Your task to perform on an android device: Add "dell alienware" to the cart on walmart Image 0: 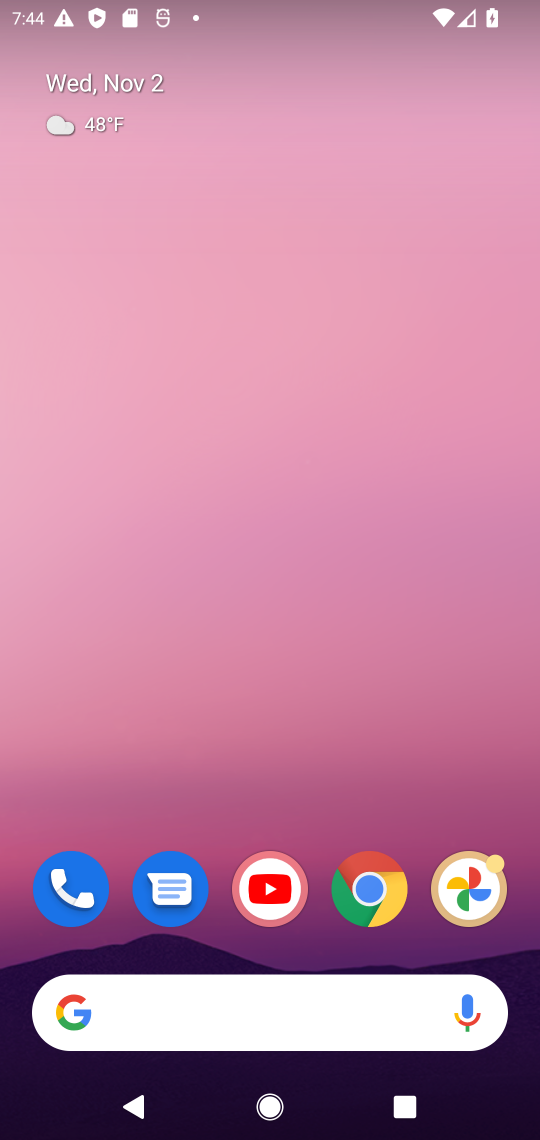
Step 0: drag from (309, 838) to (306, 72)
Your task to perform on an android device: Add "dell alienware" to the cart on walmart Image 1: 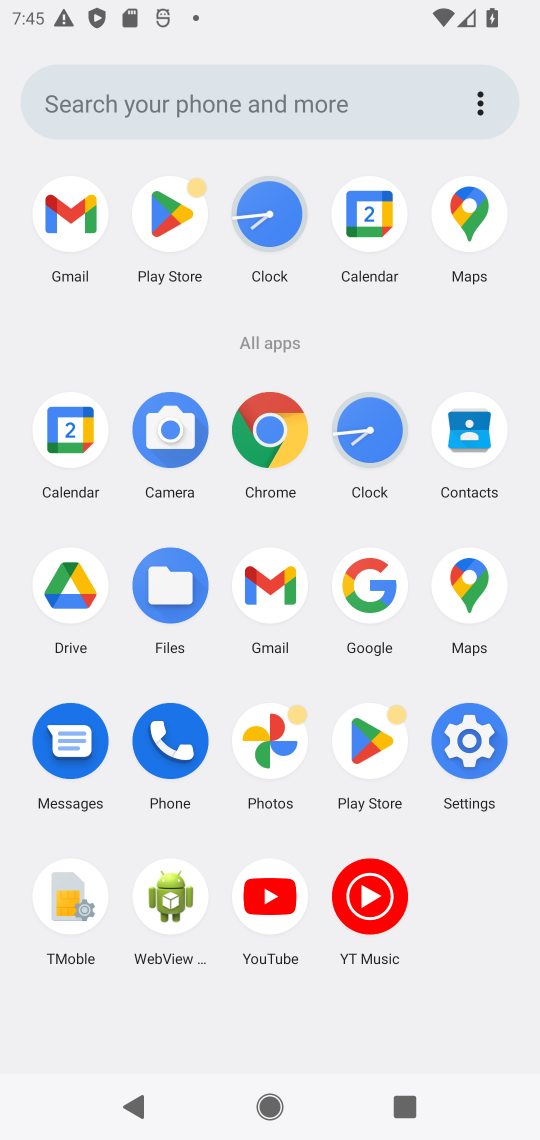
Step 1: click (273, 424)
Your task to perform on an android device: Add "dell alienware" to the cart on walmart Image 2: 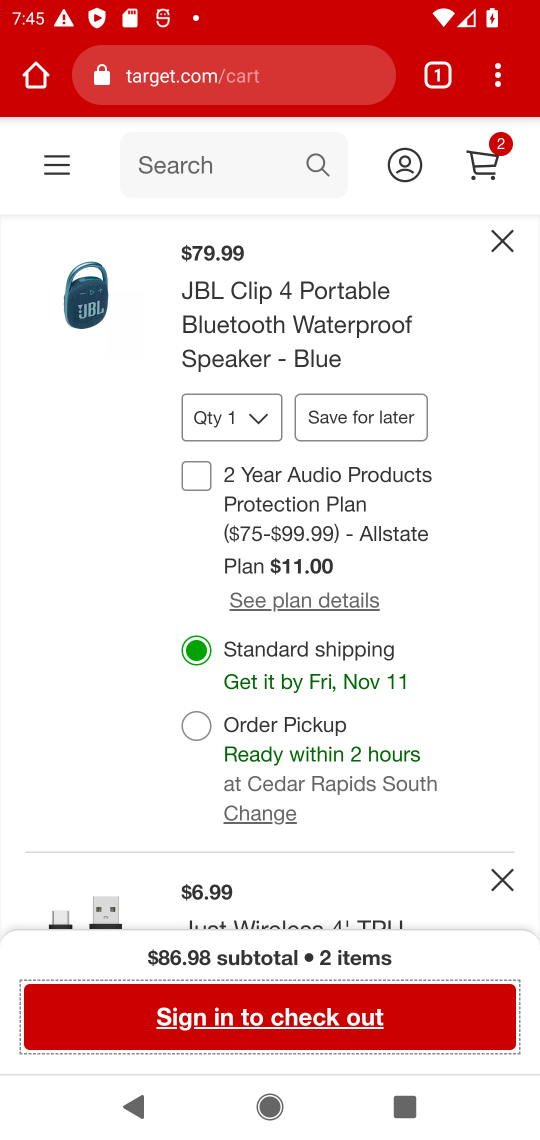
Step 2: click (305, 161)
Your task to perform on an android device: Add "dell alienware" to the cart on walmart Image 3: 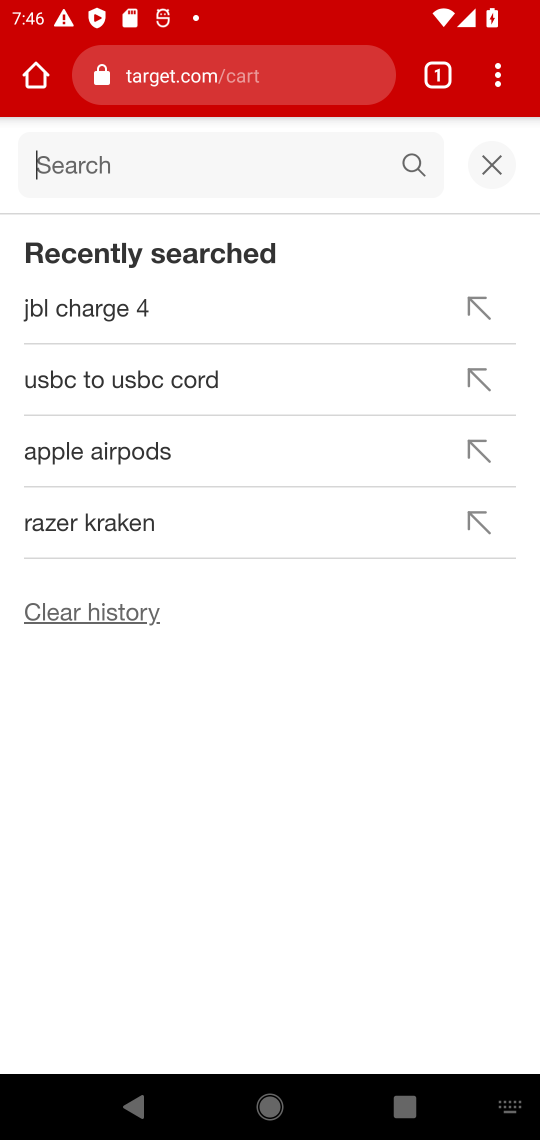
Step 3: type "dell alienware"
Your task to perform on an android device: Add "dell alienware" to the cart on walmart Image 4: 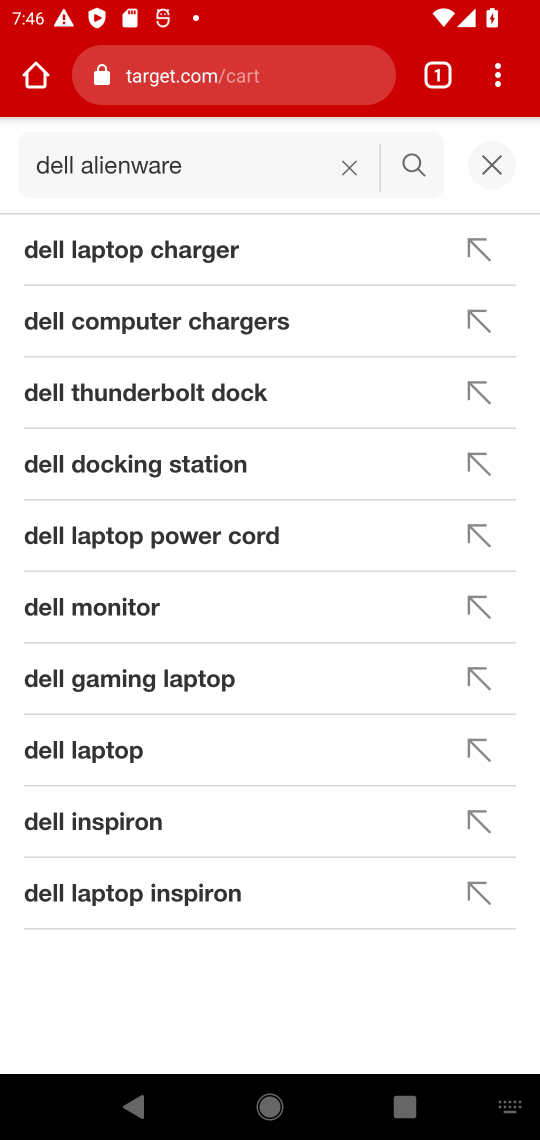
Step 4: click (407, 171)
Your task to perform on an android device: Add "dell alienware" to the cart on walmart Image 5: 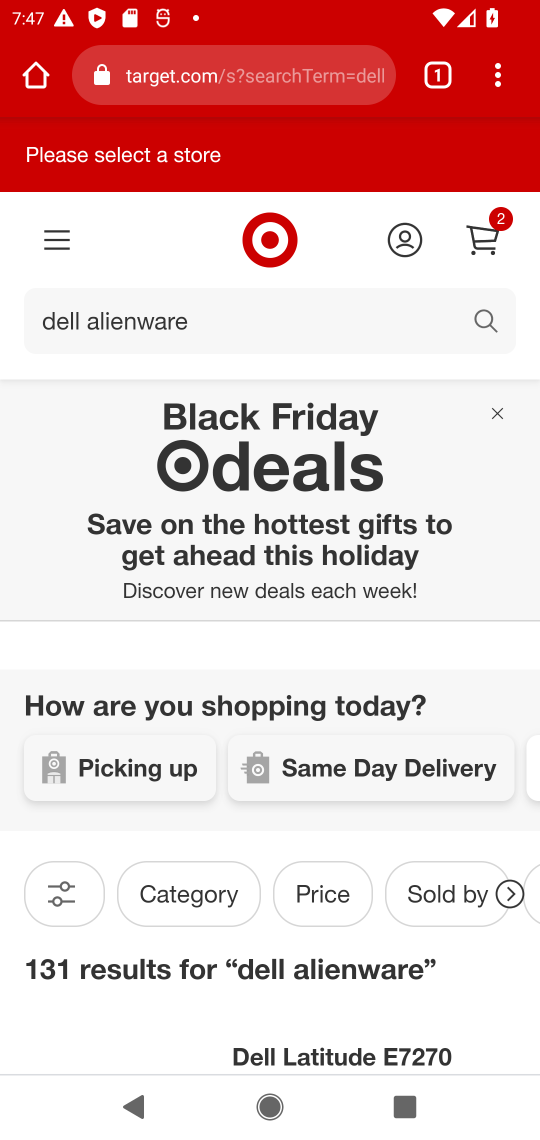
Step 5: drag from (308, 1011) to (317, 381)
Your task to perform on an android device: Add "dell alienware" to the cart on walmart Image 6: 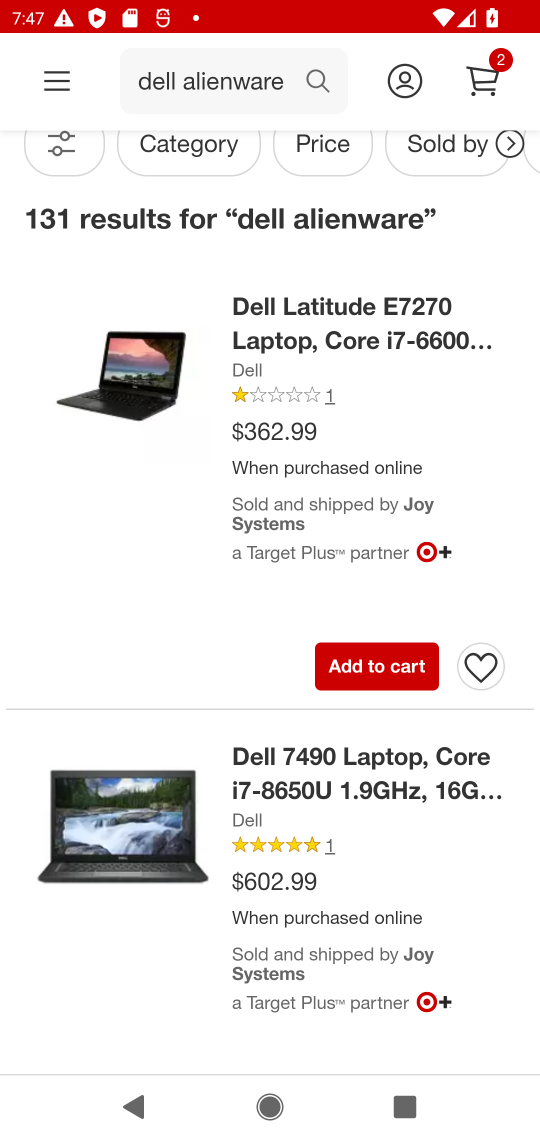
Step 6: click (383, 670)
Your task to perform on an android device: Add "dell alienware" to the cart on walmart Image 7: 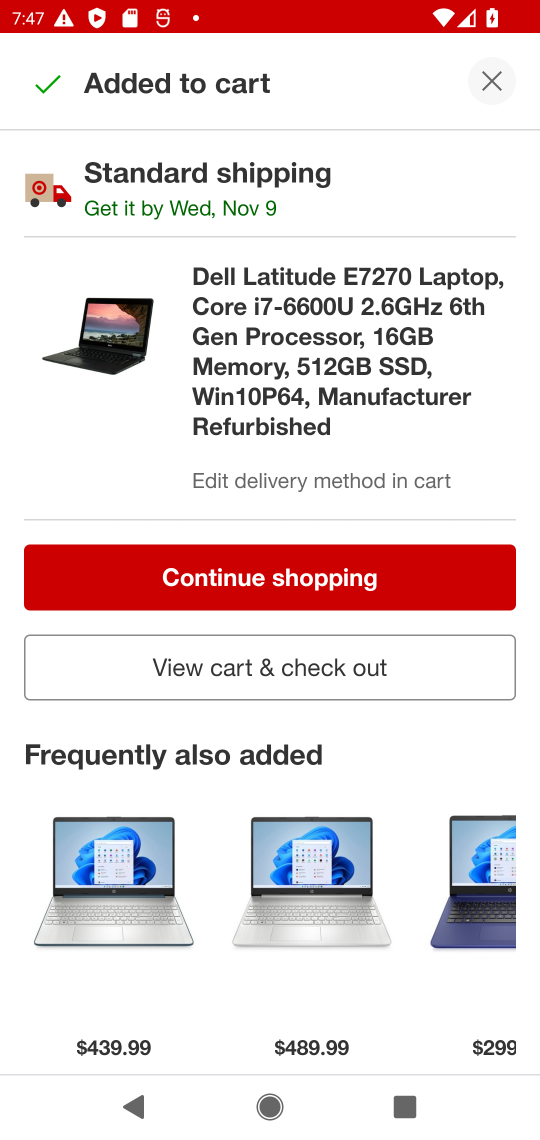
Step 7: click (486, 73)
Your task to perform on an android device: Add "dell alienware" to the cart on walmart Image 8: 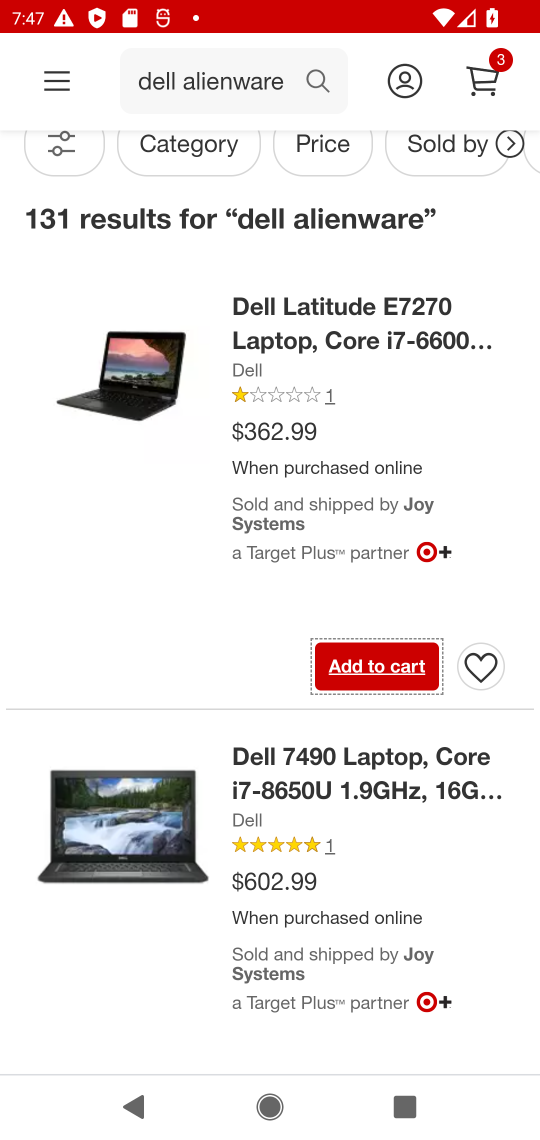
Step 8: click (495, 85)
Your task to perform on an android device: Add "dell alienware" to the cart on walmart Image 9: 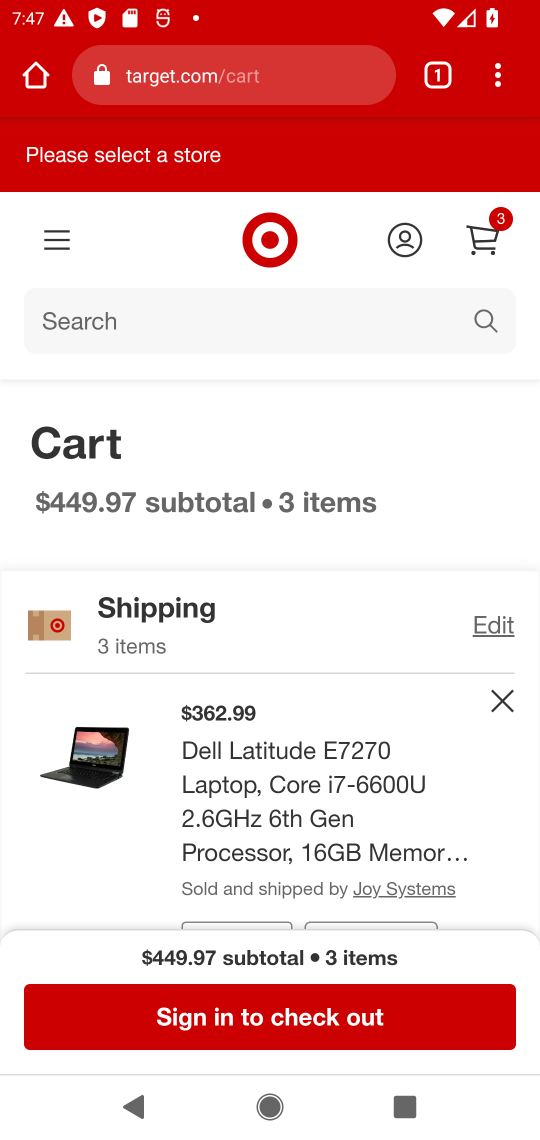
Step 9: task complete